Your task to perform on an android device: Open Reddit.com Image 0: 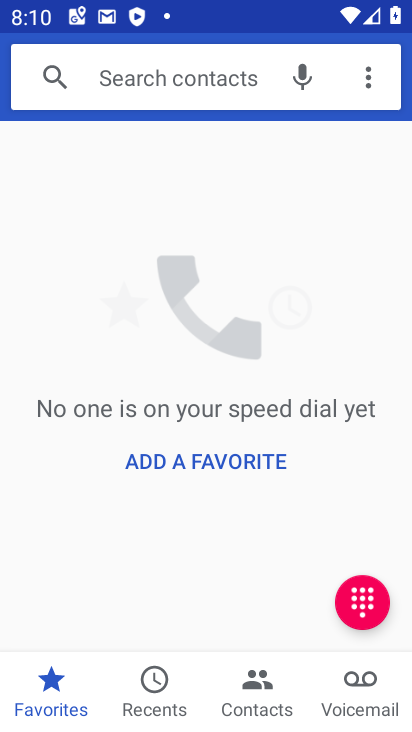
Step 0: press home button
Your task to perform on an android device: Open Reddit.com Image 1: 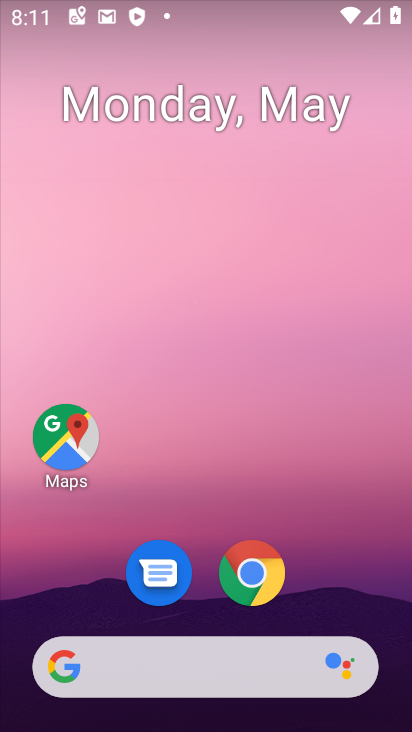
Step 1: click (255, 600)
Your task to perform on an android device: Open Reddit.com Image 2: 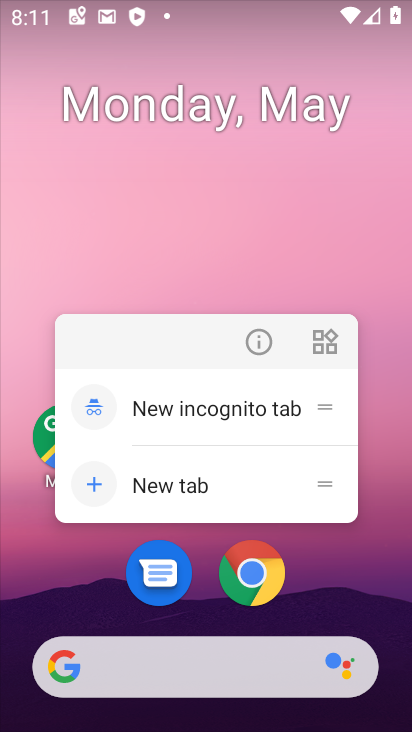
Step 2: click (260, 599)
Your task to perform on an android device: Open Reddit.com Image 3: 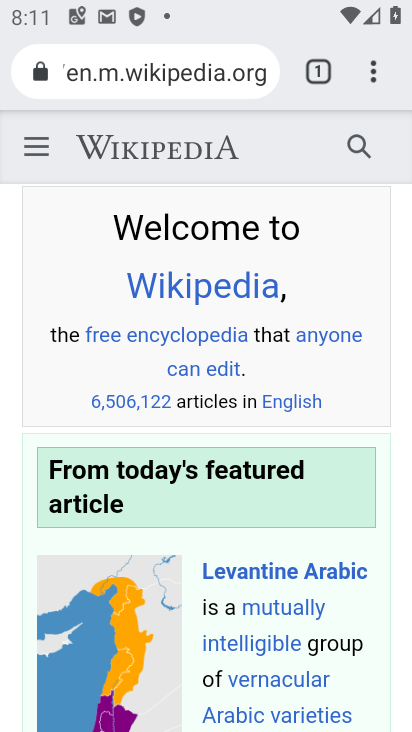
Step 3: click (244, 81)
Your task to perform on an android device: Open Reddit.com Image 4: 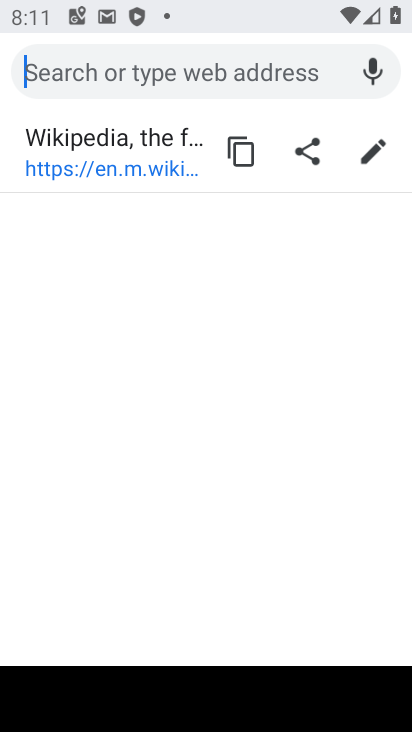
Step 4: type "reddit"
Your task to perform on an android device: Open Reddit.com Image 5: 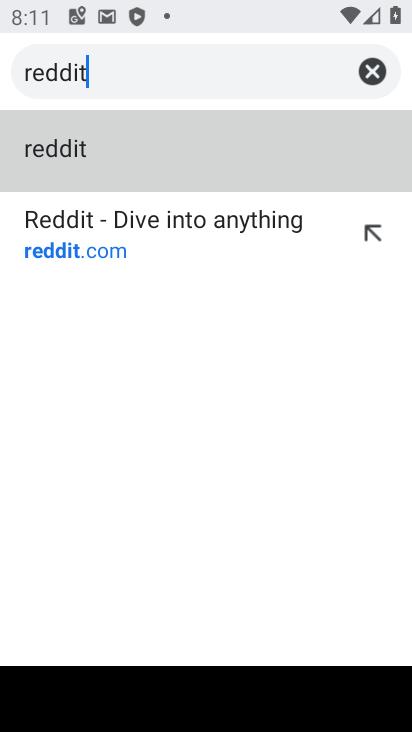
Step 5: click (235, 232)
Your task to perform on an android device: Open Reddit.com Image 6: 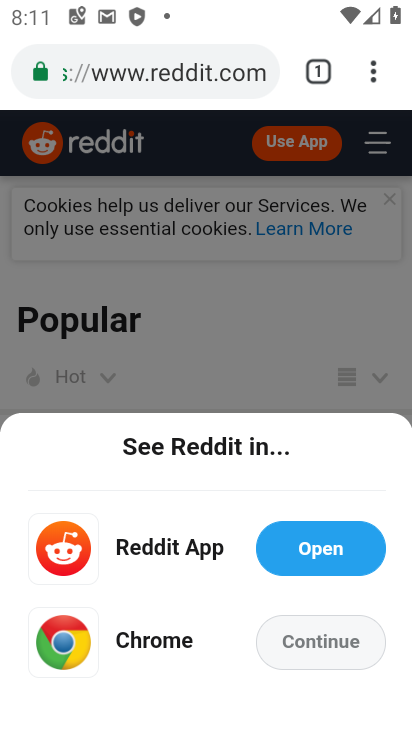
Step 6: task complete